Your task to perform on an android device: uninstall "Facebook Messenger" Image 0: 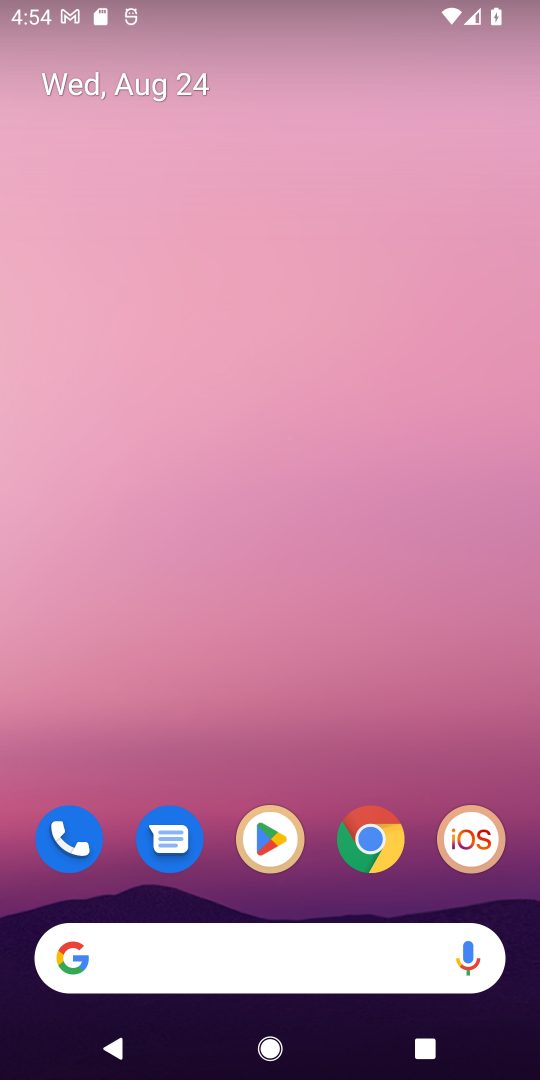
Step 0: click (270, 837)
Your task to perform on an android device: uninstall "Facebook Messenger" Image 1: 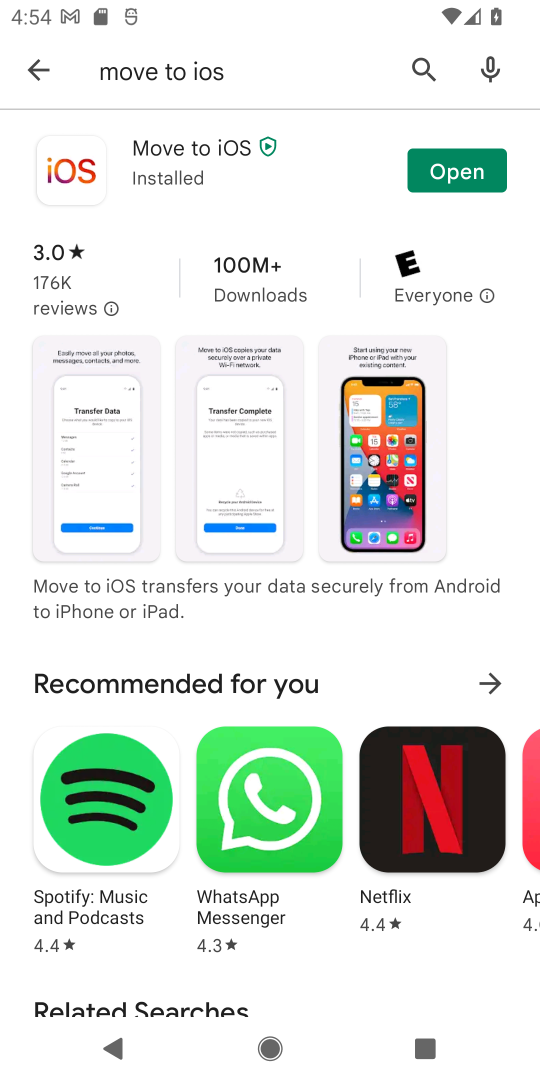
Step 1: click (422, 67)
Your task to perform on an android device: uninstall "Facebook Messenger" Image 2: 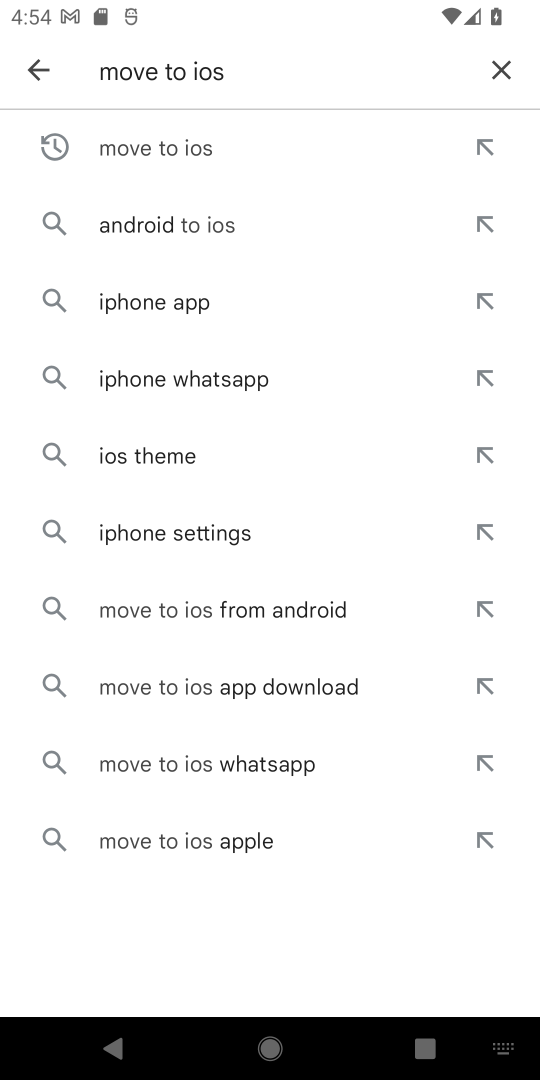
Step 2: click (497, 59)
Your task to perform on an android device: uninstall "Facebook Messenger" Image 3: 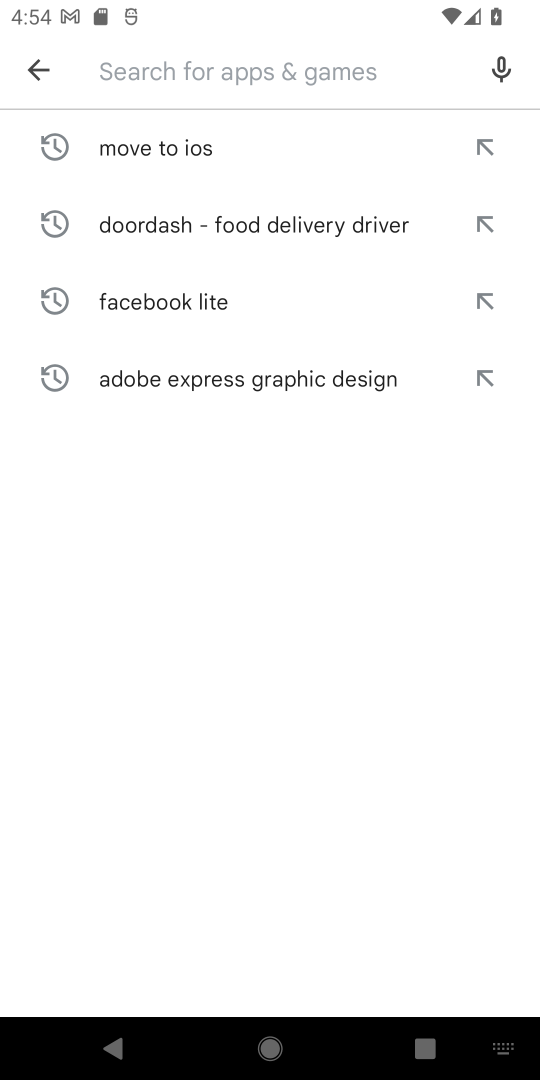
Step 3: type "Facebook Messenger"
Your task to perform on an android device: uninstall "Facebook Messenger" Image 4: 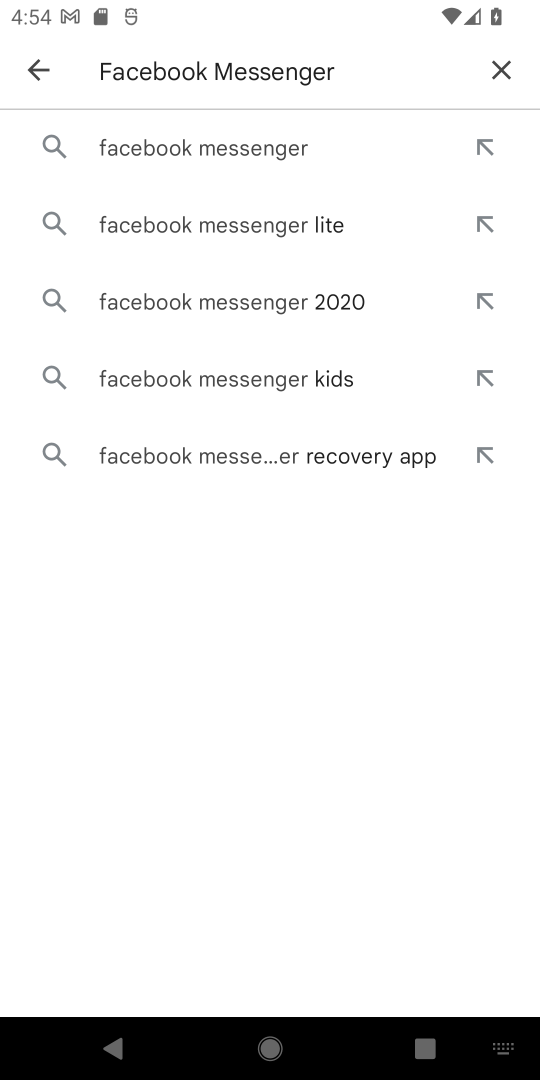
Step 4: click (243, 152)
Your task to perform on an android device: uninstall "Facebook Messenger" Image 5: 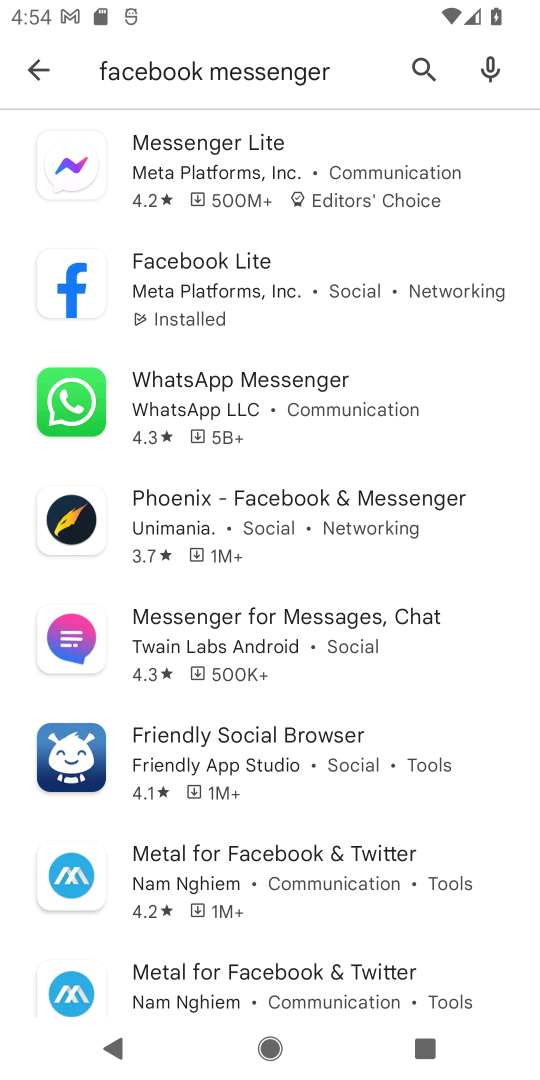
Step 5: click (280, 179)
Your task to perform on an android device: uninstall "Facebook Messenger" Image 6: 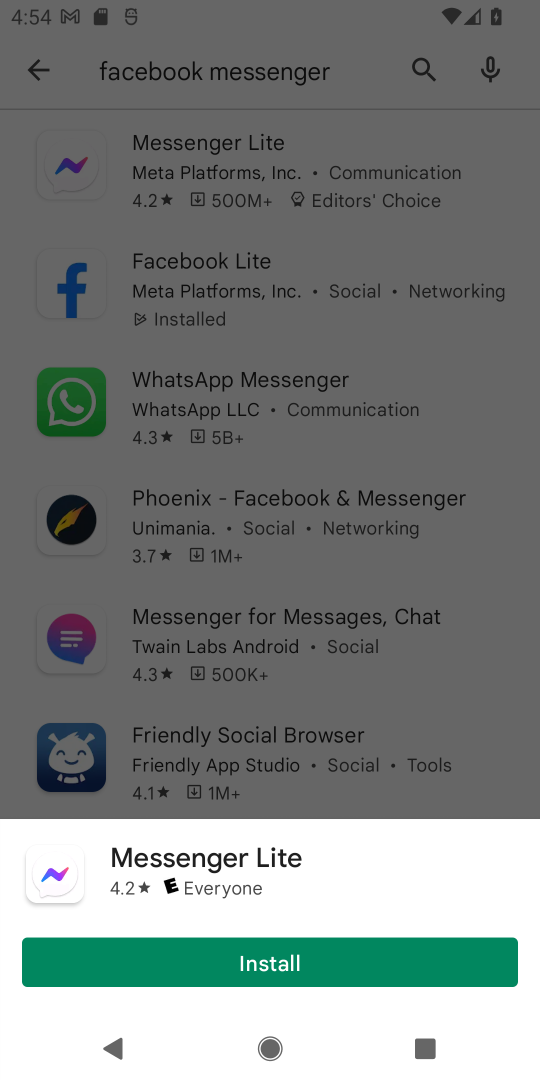
Step 6: task complete